Your task to perform on an android device: open the mobile data screen to see how much data has been used Image 0: 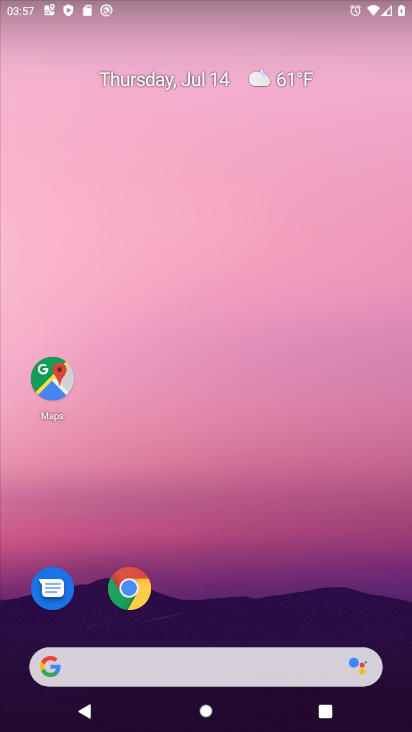
Step 0: press home button
Your task to perform on an android device: open the mobile data screen to see how much data has been used Image 1: 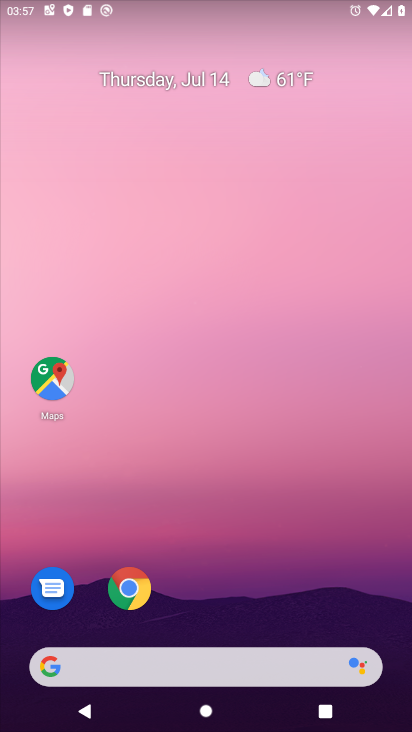
Step 1: press home button
Your task to perform on an android device: open the mobile data screen to see how much data has been used Image 2: 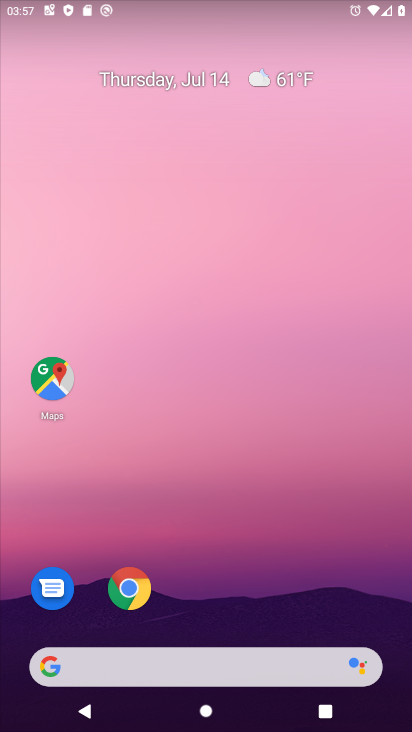
Step 2: drag from (251, 570) to (251, 43)
Your task to perform on an android device: open the mobile data screen to see how much data has been used Image 3: 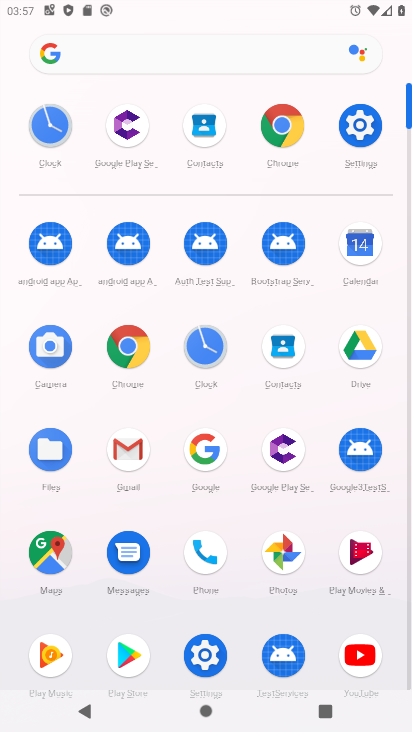
Step 3: click (359, 118)
Your task to perform on an android device: open the mobile data screen to see how much data has been used Image 4: 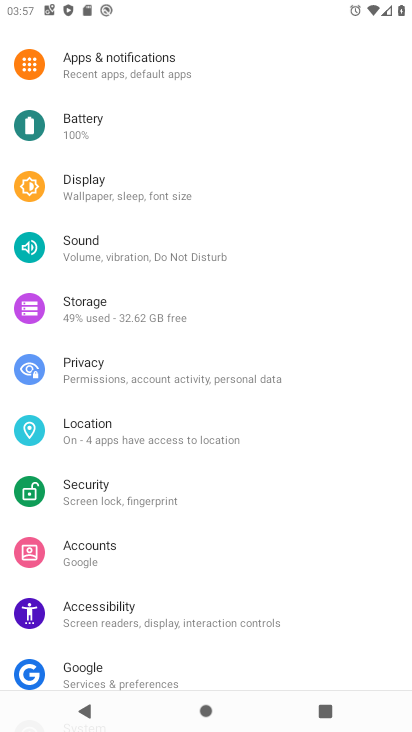
Step 4: drag from (290, 63) to (266, 459)
Your task to perform on an android device: open the mobile data screen to see how much data has been used Image 5: 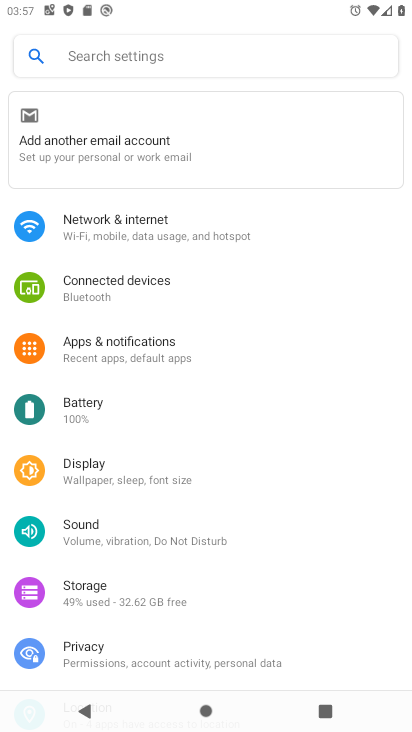
Step 5: click (94, 222)
Your task to perform on an android device: open the mobile data screen to see how much data has been used Image 6: 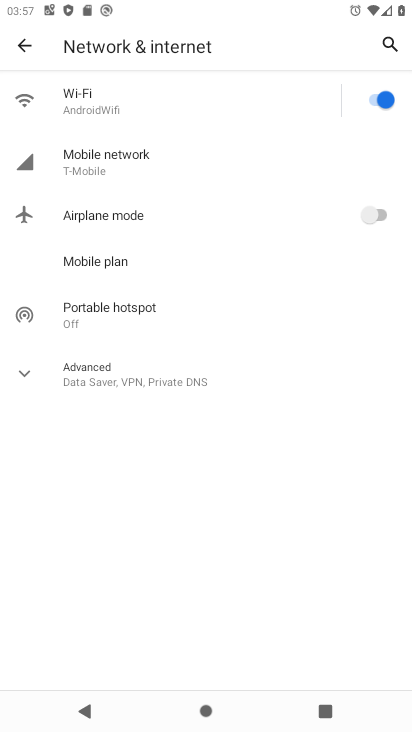
Step 6: click (132, 162)
Your task to perform on an android device: open the mobile data screen to see how much data has been used Image 7: 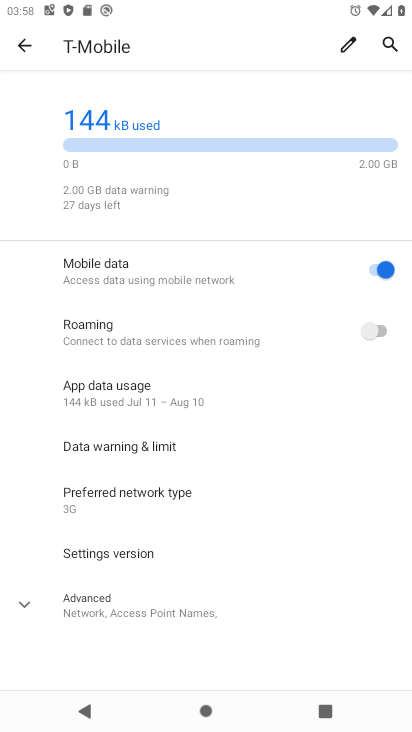
Step 7: task complete